Your task to perform on an android device: Open accessibility settings Image 0: 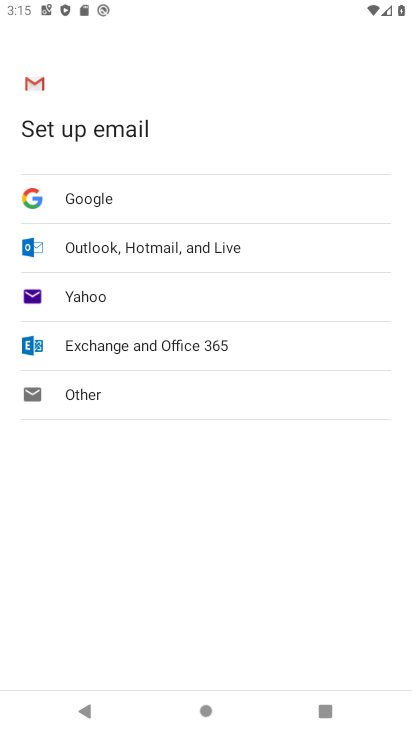
Step 0: drag from (249, 6) to (74, 646)
Your task to perform on an android device: Open accessibility settings Image 1: 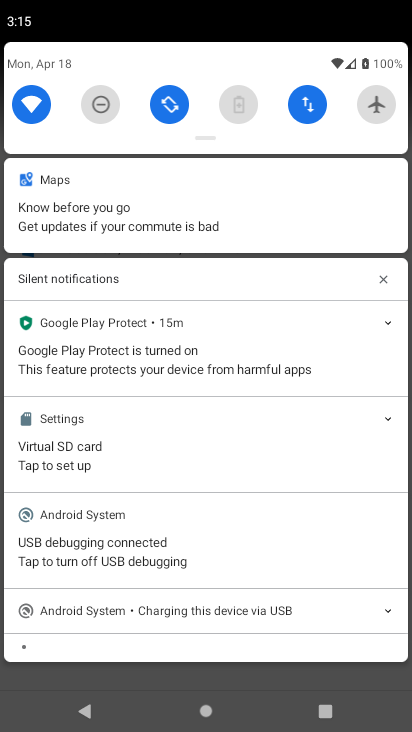
Step 1: drag from (209, 69) to (130, 634)
Your task to perform on an android device: Open accessibility settings Image 2: 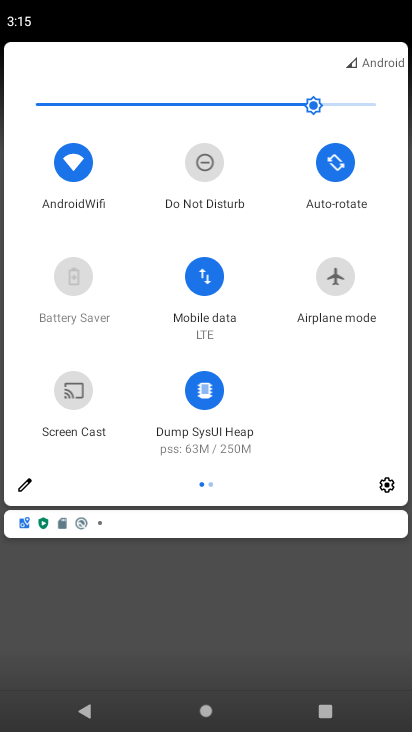
Step 2: click (386, 492)
Your task to perform on an android device: Open accessibility settings Image 3: 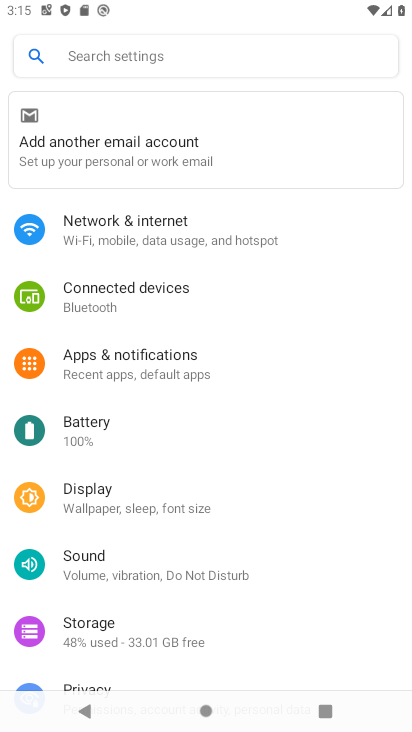
Step 3: drag from (146, 587) to (178, 106)
Your task to perform on an android device: Open accessibility settings Image 4: 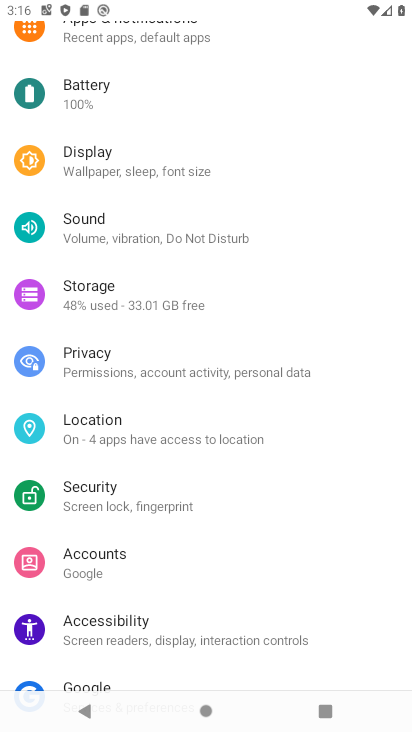
Step 4: click (88, 639)
Your task to perform on an android device: Open accessibility settings Image 5: 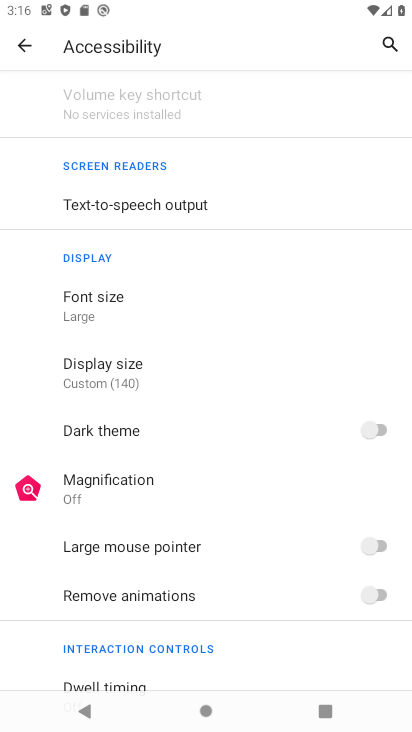
Step 5: task complete